Your task to perform on an android device: Is it going to rain this weekend? Image 0: 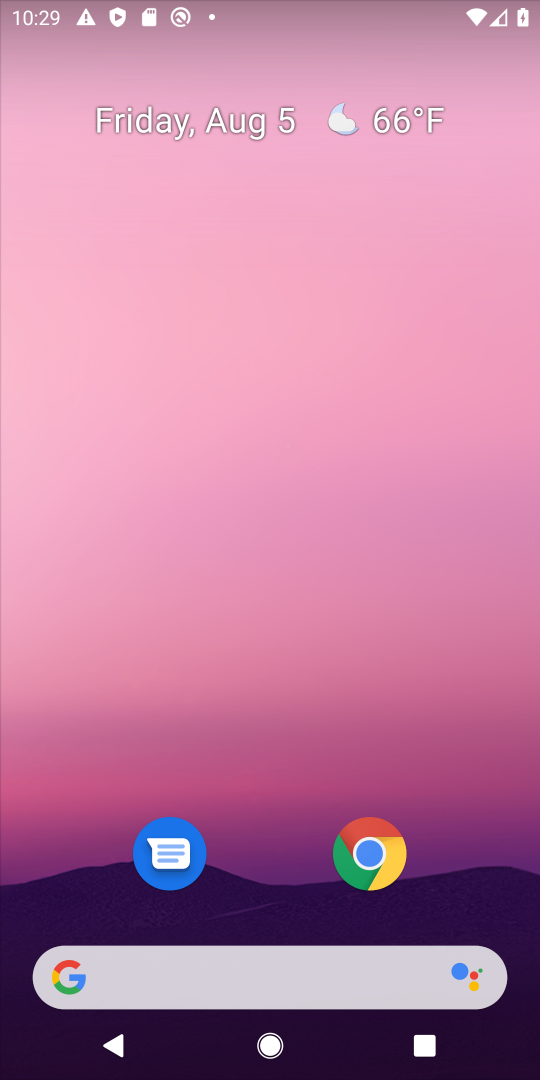
Step 0: click (229, 973)
Your task to perform on an android device: Is it going to rain this weekend? Image 1: 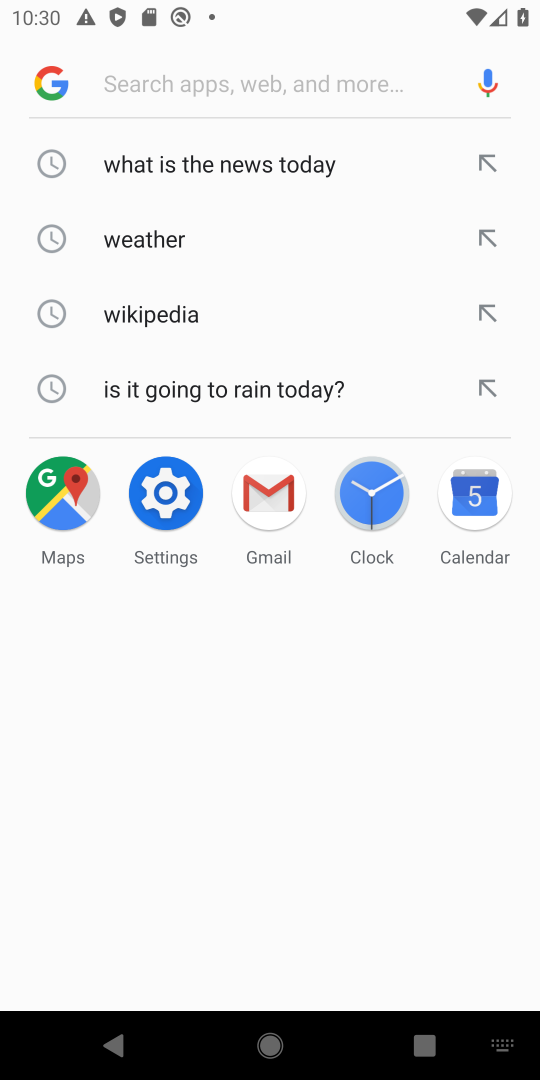
Step 1: type "is it going to rain this weekend"
Your task to perform on an android device: Is it going to rain this weekend? Image 2: 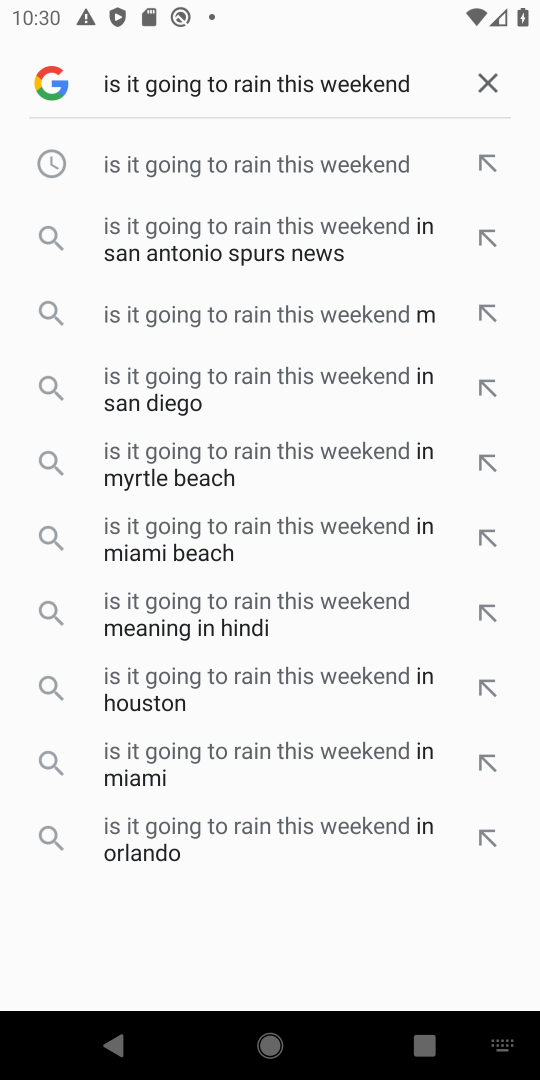
Step 2: click (213, 153)
Your task to perform on an android device: Is it going to rain this weekend? Image 3: 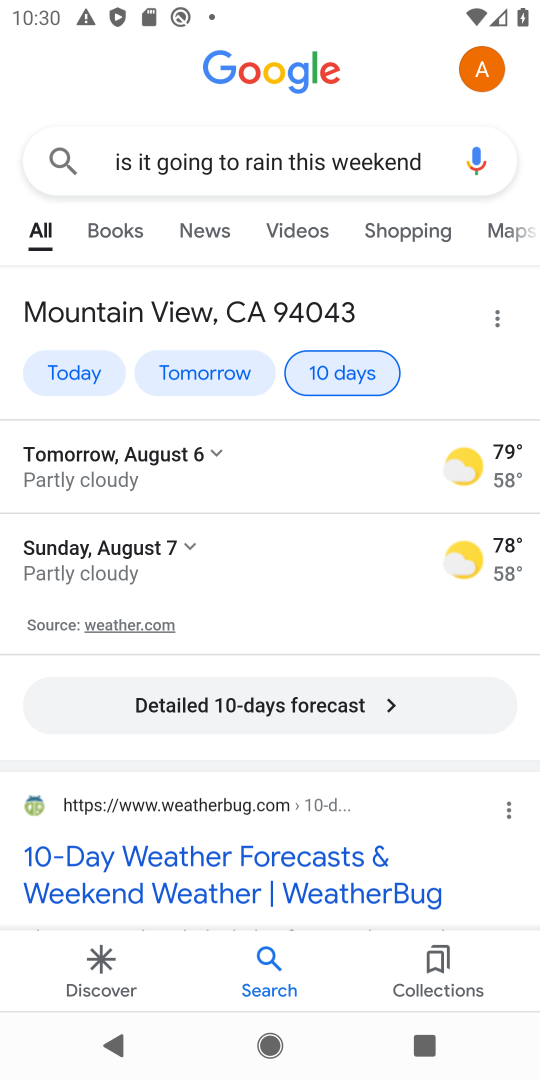
Step 3: task complete